Your task to perform on an android device: Open Google Image 0: 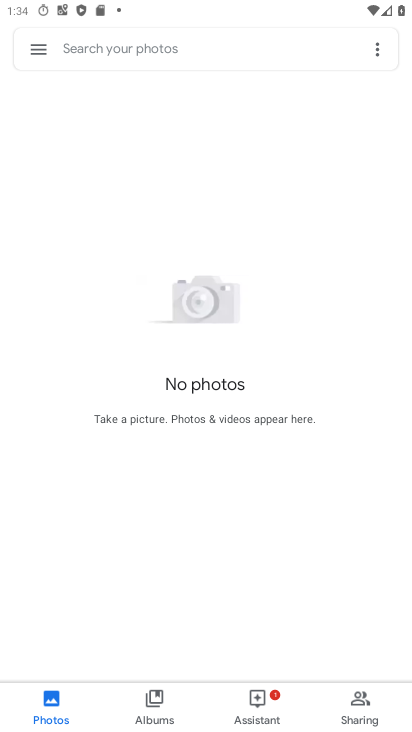
Step 0: press home button
Your task to perform on an android device: Open Google Image 1: 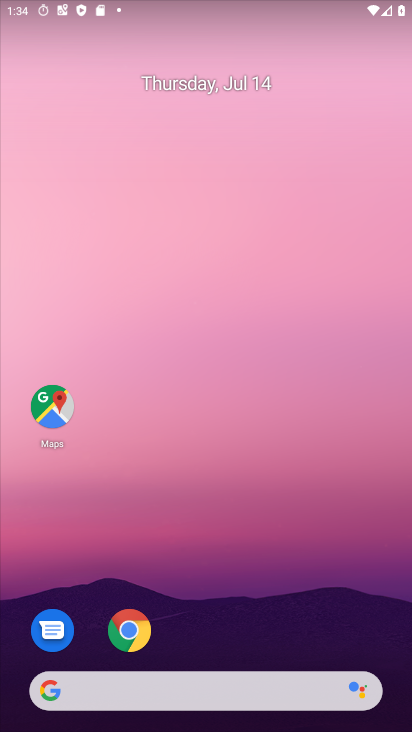
Step 1: drag from (154, 687) to (97, 35)
Your task to perform on an android device: Open Google Image 2: 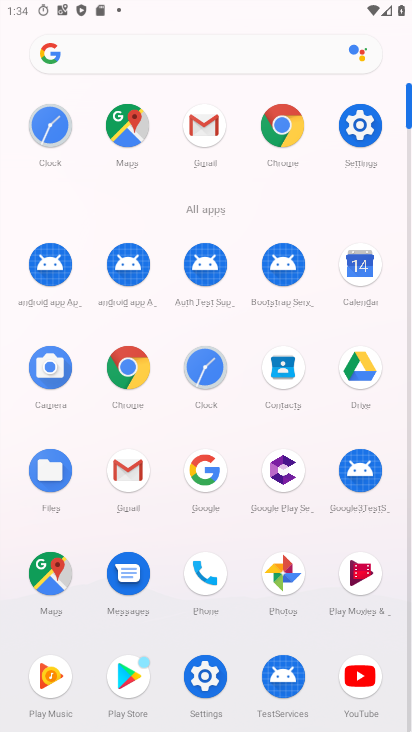
Step 2: click (204, 464)
Your task to perform on an android device: Open Google Image 3: 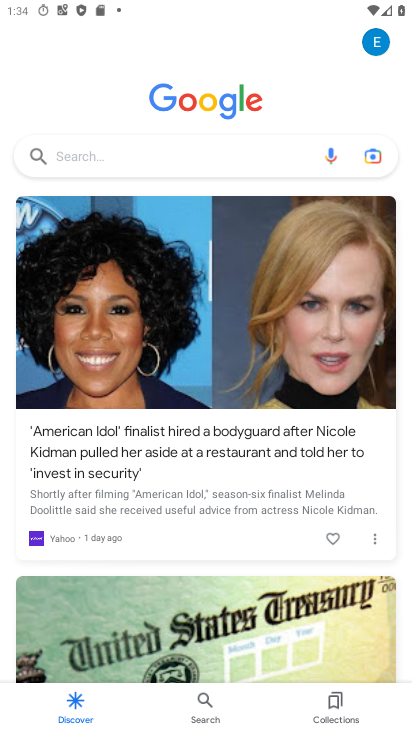
Step 3: task complete